Your task to perform on an android device: Open Chrome and go to the settings page Image 0: 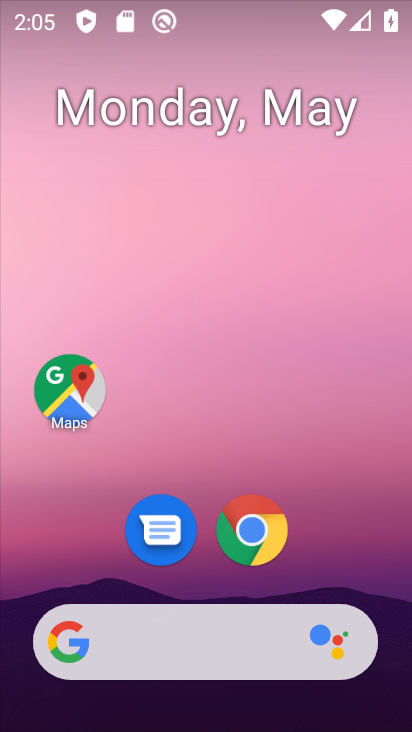
Step 0: click (229, 546)
Your task to perform on an android device: Open Chrome and go to the settings page Image 1: 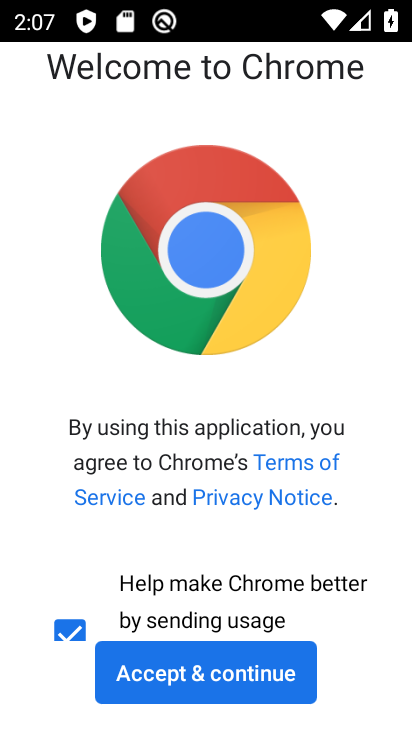
Step 1: click (166, 678)
Your task to perform on an android device: Open Chrome and go to the settings page Image 2: 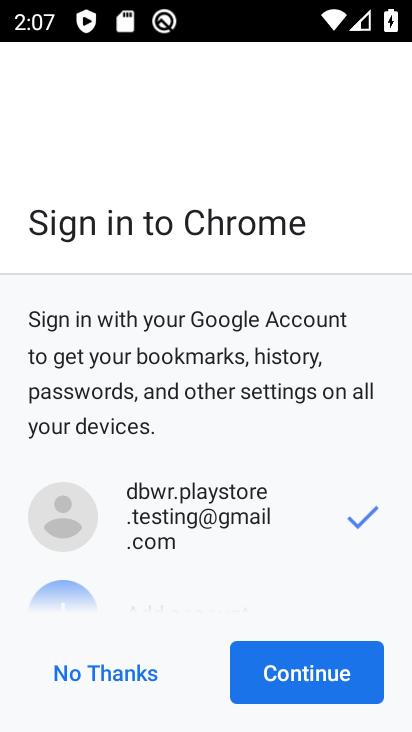
Step 2: click (349, 677)
Your task to perform on an android device: Open Chrome and go to the settings page Image 3: 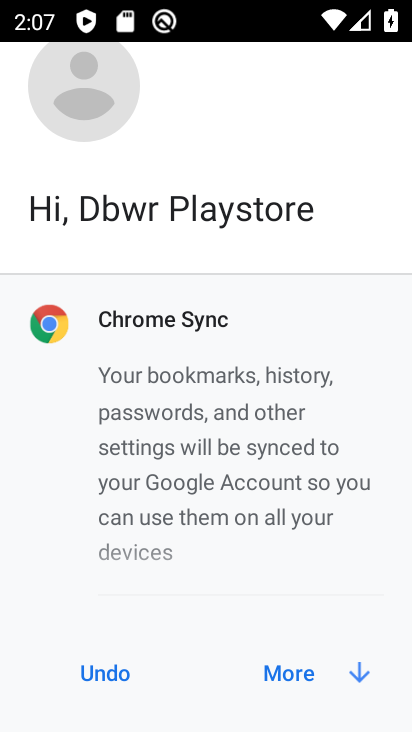
Step 3: click (328, 675)
Your task to perform on an android device: Open Chrome and go to the settings page Image 4: 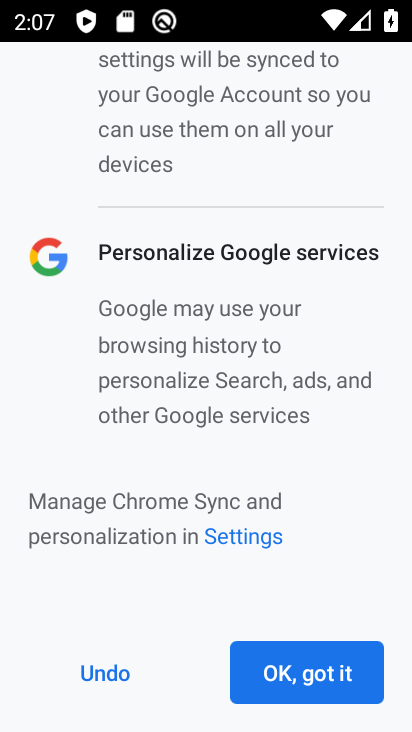
Step 4: click (328, 680)
Your task to perform on an android device: Open Chrome and go to the settings page Image 5: 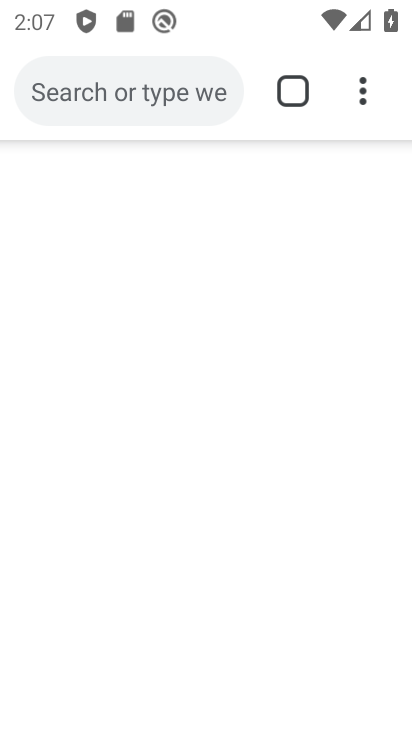
Step 5: task complete